Your task to perform on an android device: find which apps use the phone's location Image 0: 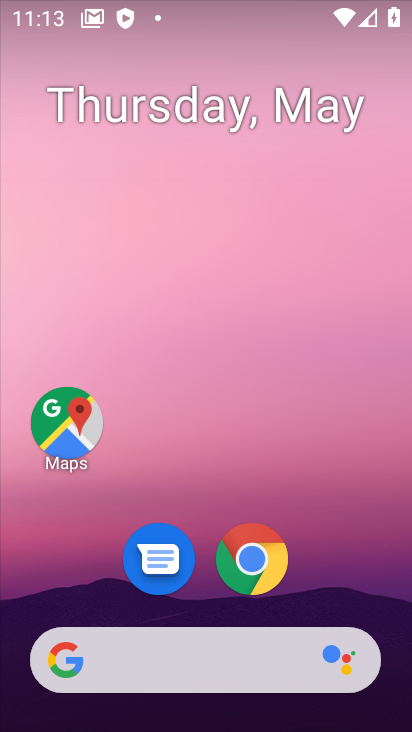
Step 0: drag from (231, 727) to (232, 123)
Your task to perform on an android device: find which apps use the phone's location Image 1: 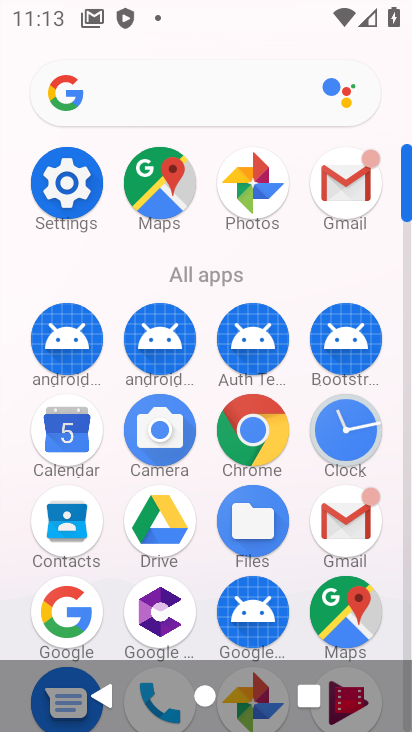
Step 1: click (55, 175)
Your task to perform on an android device: find which apps use the phone's location Image 2: 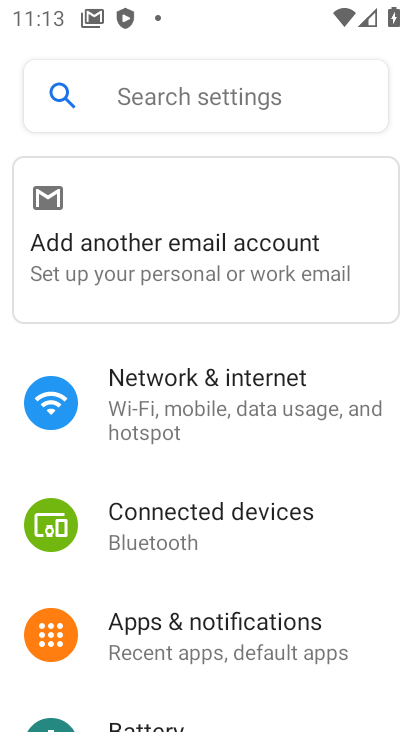
Step 2: drag from (222, 703) to (224, 348)
Your task to perform on an android device: find which apps use the phone's location Image 3: 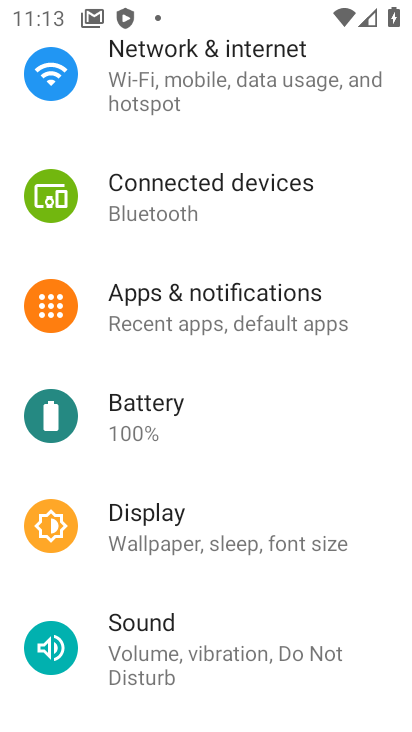
Step 3: drag from (229, 620) to (224, 309)
Your task to perform on an android device: find which apps use the phone's location Image 4: 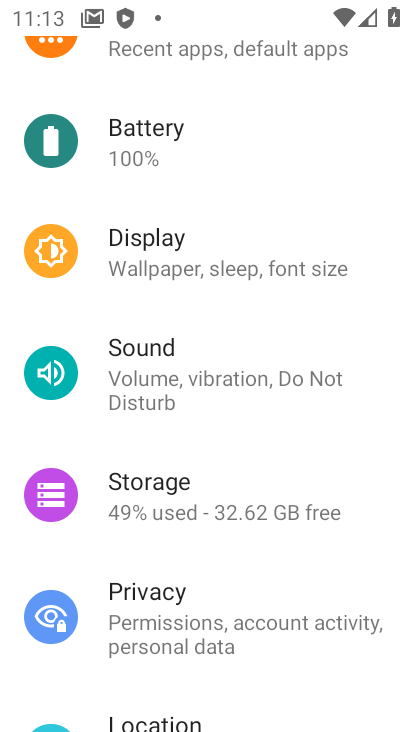
Step 4: drag from (234, 675) to (227, 339)
Your task to perform on an android device: find which apps use the phone's location Image 5: 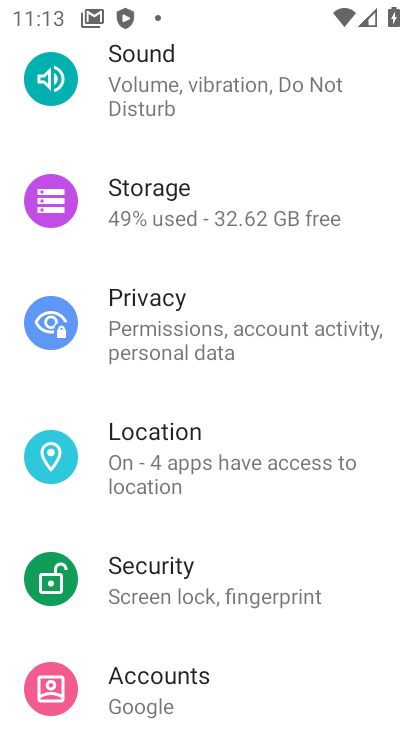
Step 5: click (158, 446)
Your task to perform on an android device: find which apps use the phone's location Image 6: 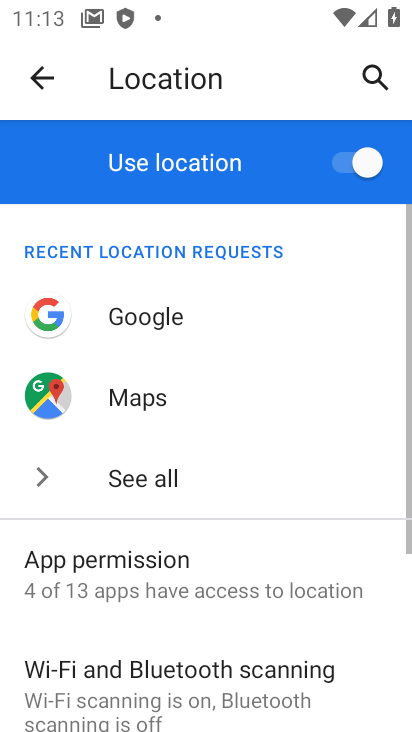
Step 6: click (116, 561)
Your task to perform on an android device: find which apps use the phone's location Image 7: 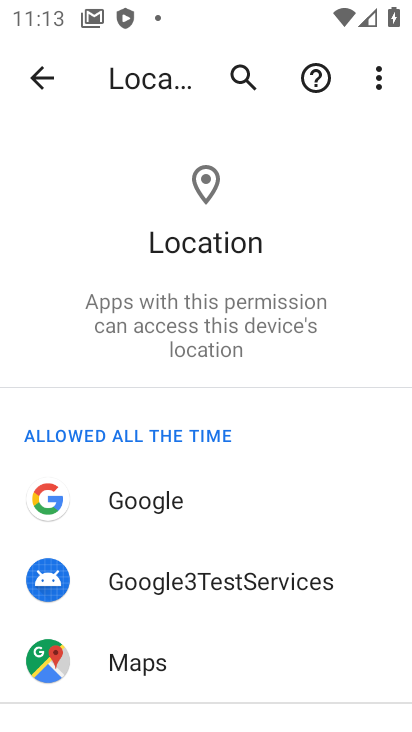
Step 7: task complete